Your task to perform on an android device: read, delete, or share a saved page in the chrome app Image 0: 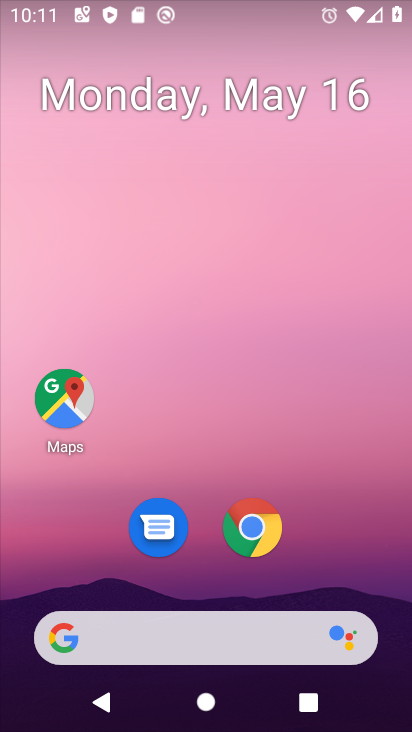
Step 0: click (255, 527)
Your task to perform on an android device: read, delete, or share a saved page in the chrome app Image 1: 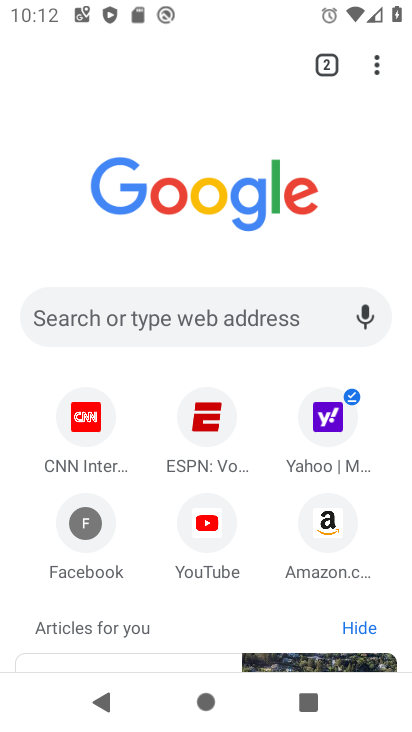
Step 1: click (377, 66)
Your task to perform on an android device: read, delete, or share a saved page in the chrome app Image 2: 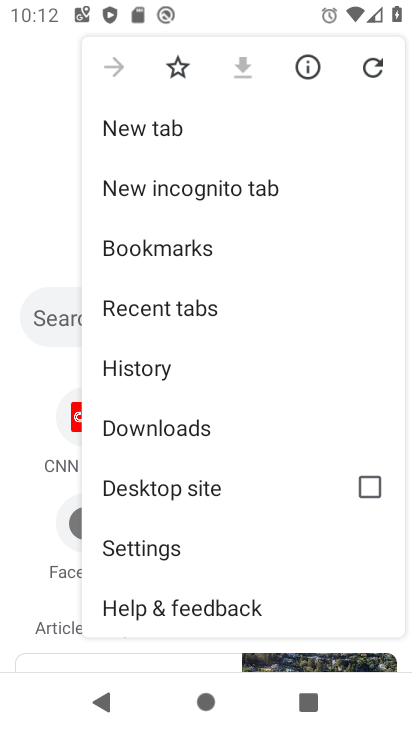
Step 2: click (156, 436)
Your task to perform on an android device: read, delete, or share a saved page in the chrome app Image 3: 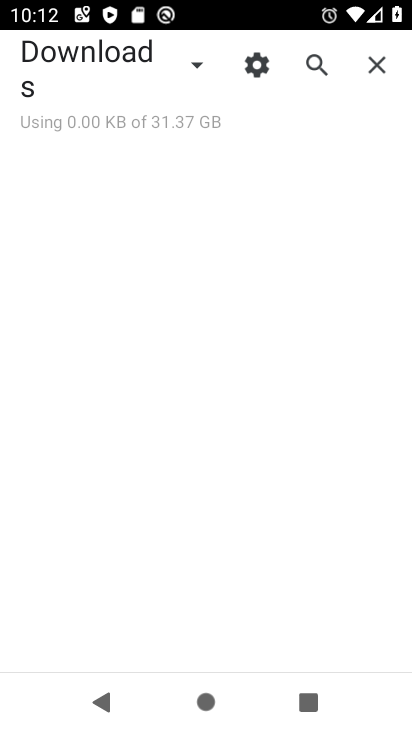
Step 3: click (202, 65)
Your task to perform on an android device: read, delete, or share a saved page in the chrome app Image 4: 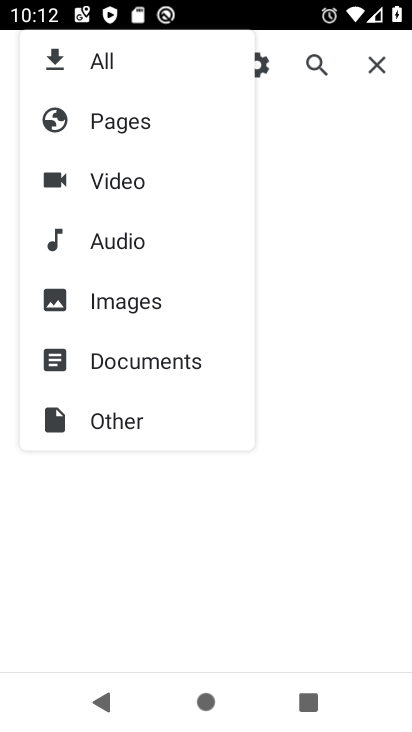
Step 4: click (113, 131)
Your task to perform on an android device: read, delete, or share a saved page in the chrome app Image 5: 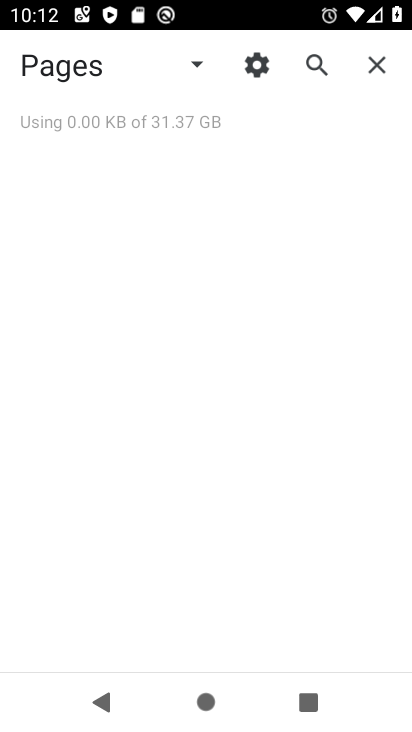
Step 5: task complete